Your task to perform on an android device: delete browsing data in the chrome app Image 0: 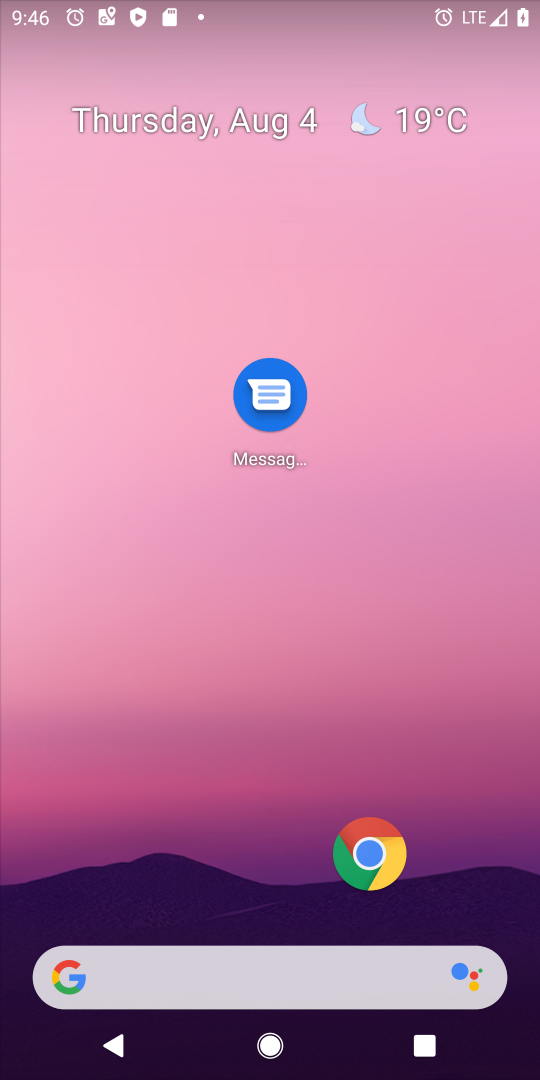
Step 0: click (363, 860)
Your task to perform on an android device: delete browsing data in the chrome app Image 1: 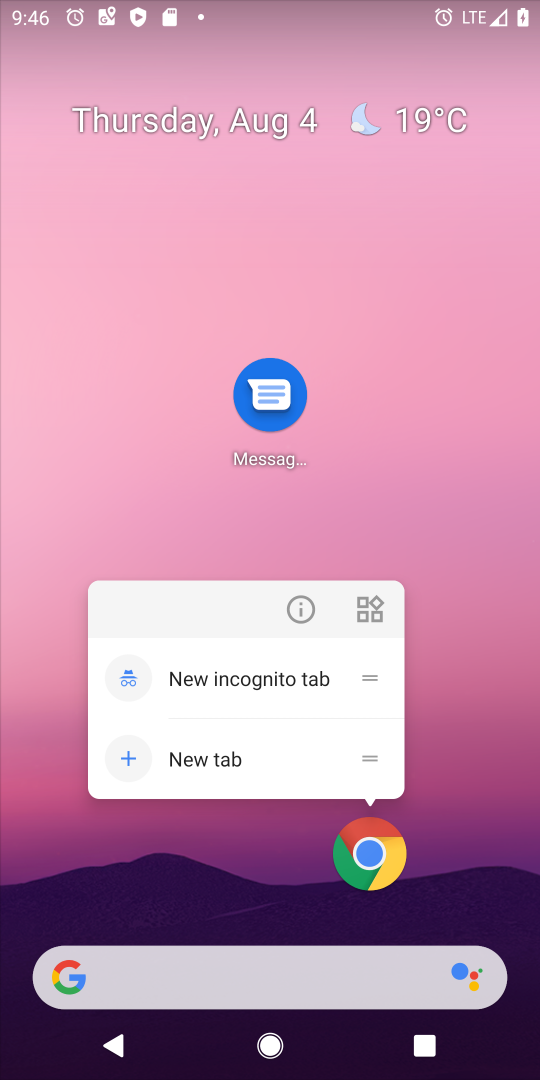
Step 1: click (363, 860)
Your task to perform on an android device: delete browsing data in the chrome app Image 2: 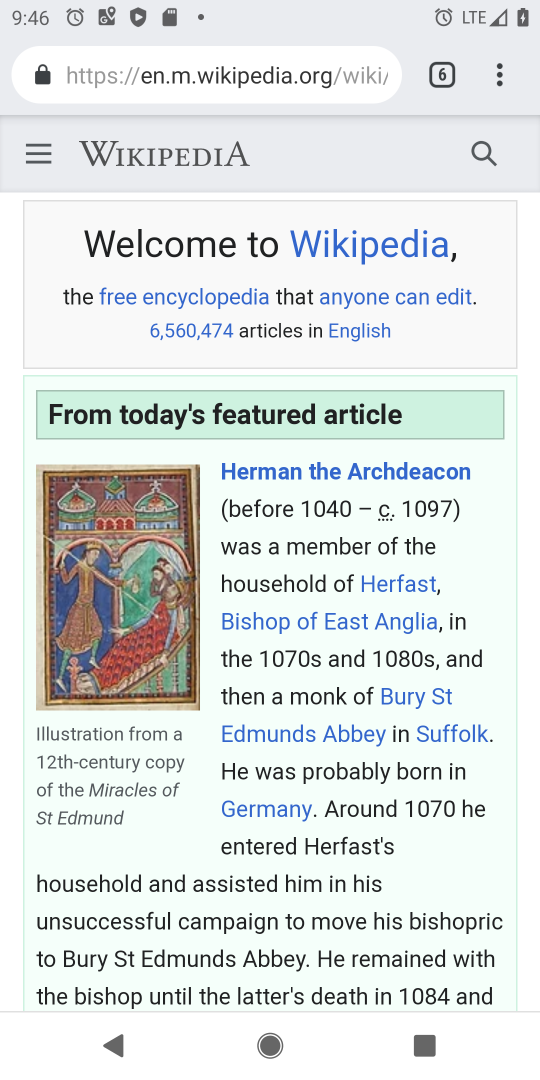
Step 2: click (497, 66)
Your task to perform on an android device: delete browsing data in the chrome app Image 3: 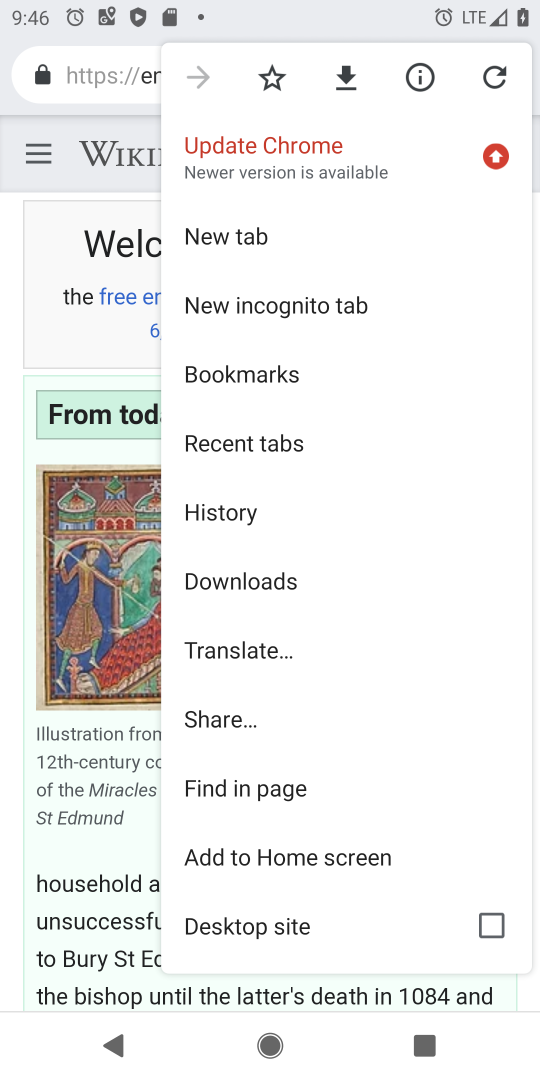
Step 3: drag from (277, 853) to (277, 461)
Your task to perform on an android device: delete browsing data in the chrome app Image 4: 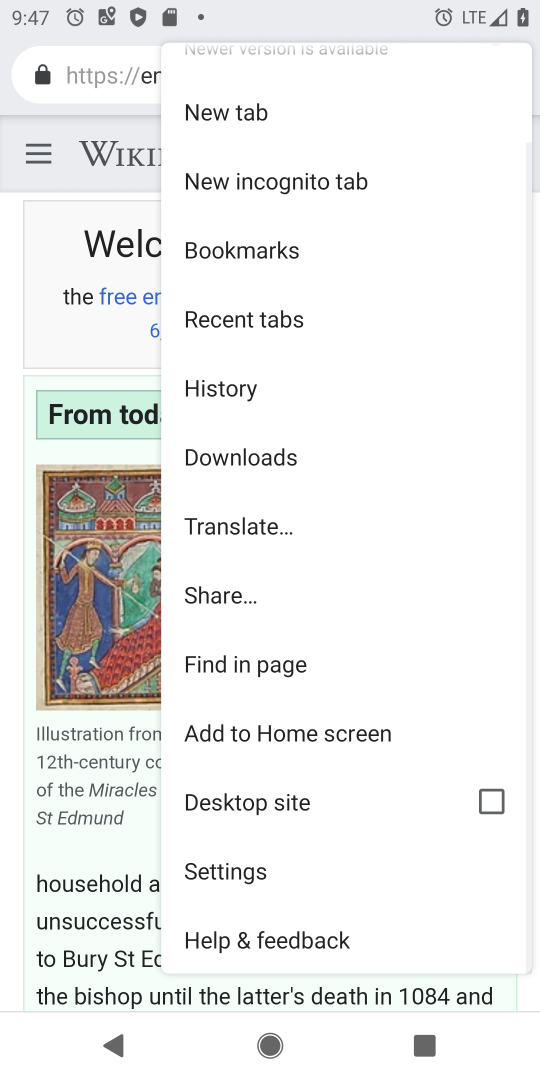
Step 4: click (203, 877)
Your task to perform on an android device: delete browsing data in the chrome app Image 5: 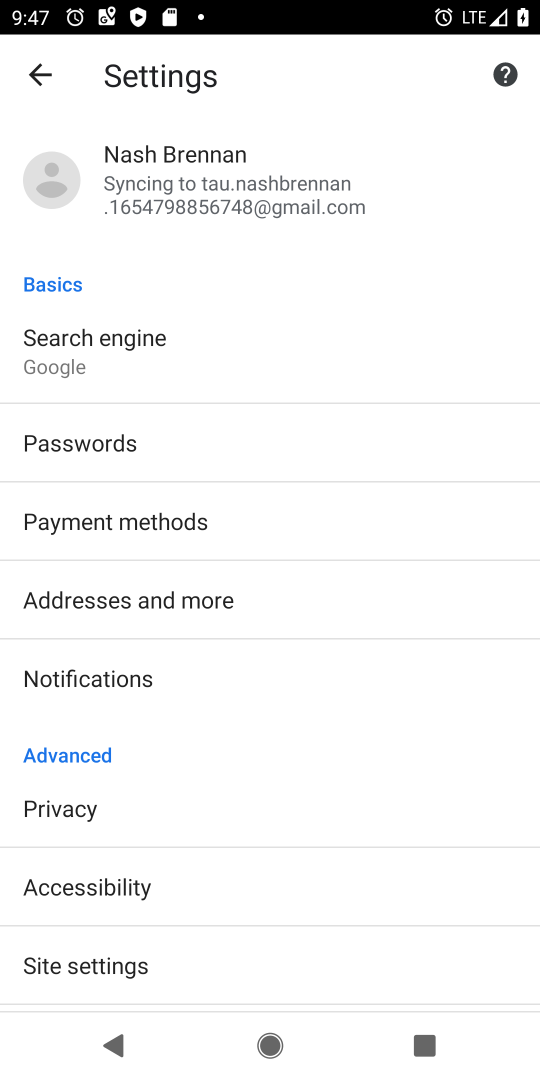
Step 5: click (61, 798)
Your task to perform on an android device: delete browsing data in the chrome app Image 6: 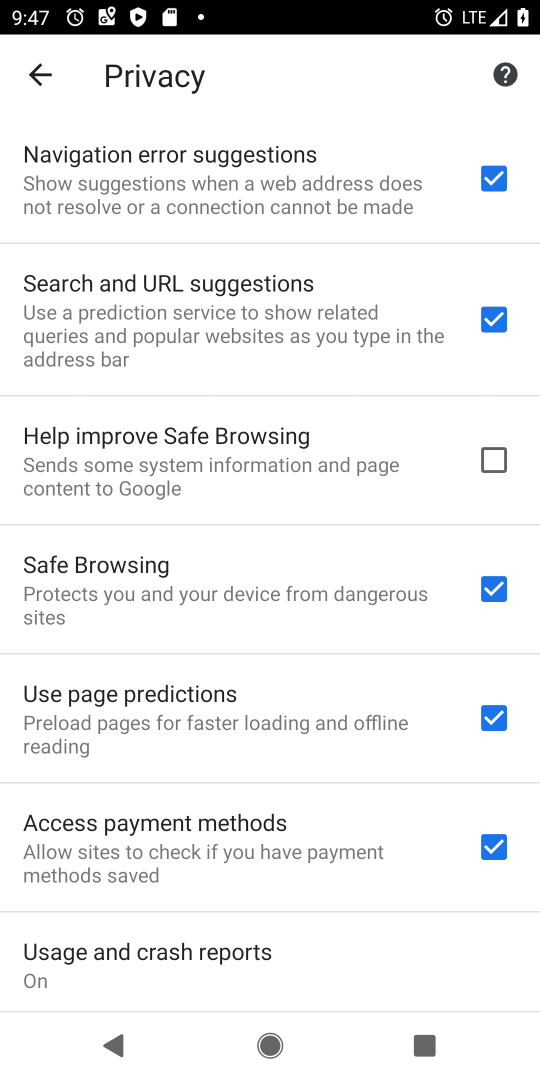
Step 6: drag from (195, 960) to (195, 535)
Your task to perform on an android device: delete browsing data in the chrome app Image 7: 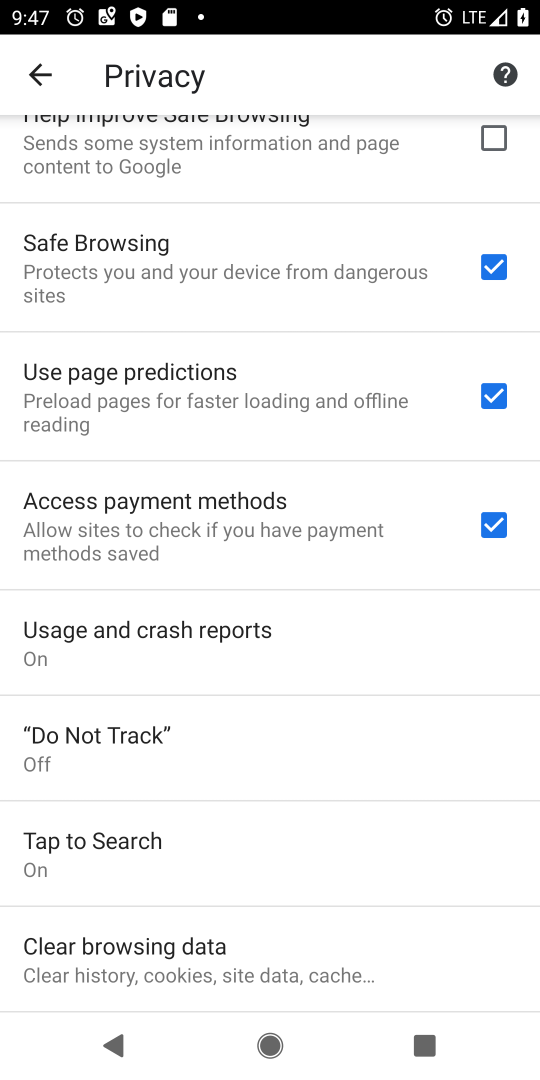
Step 7: click (172, 948)
Your task to perform on an android device: delete browsing data in the chrome app Image 8: 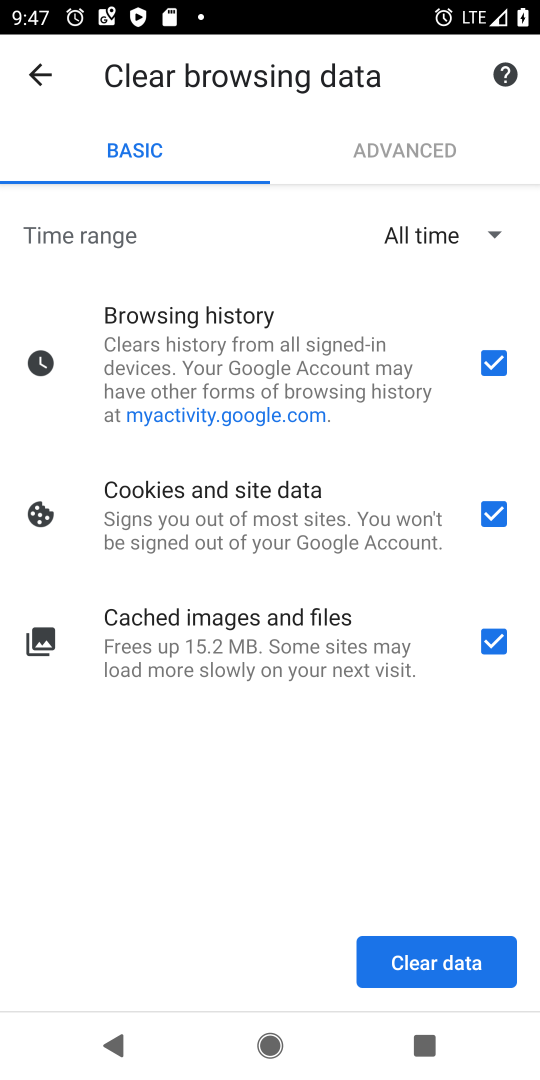
Step 8: click (434, 965)
Your task to perform on an android device: delete browsing data in the chrome app Image 9: 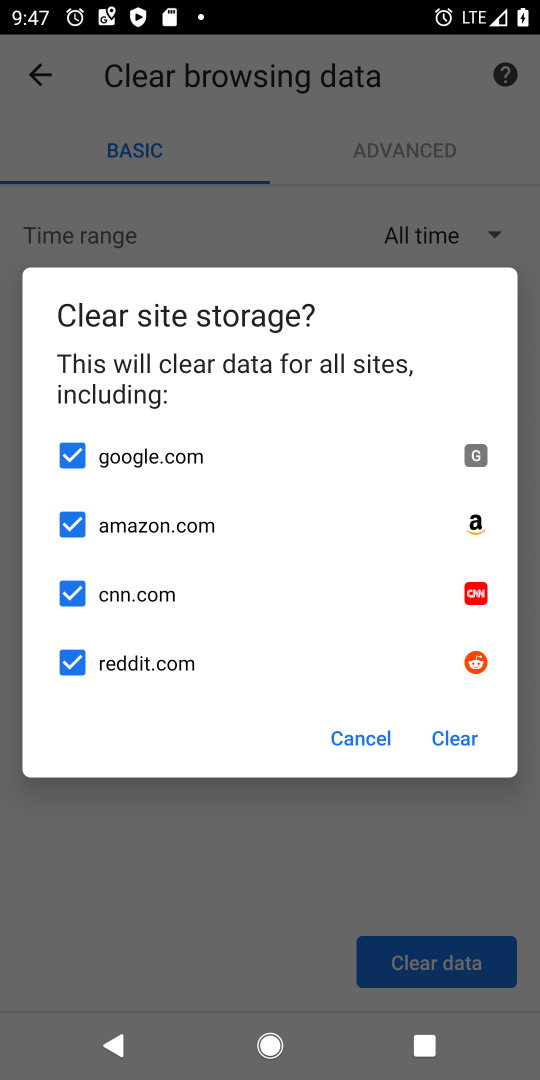
Step 9: click (455, 735)
Your task to perform on an android device: delete browsing data in the chrome app Image 10: 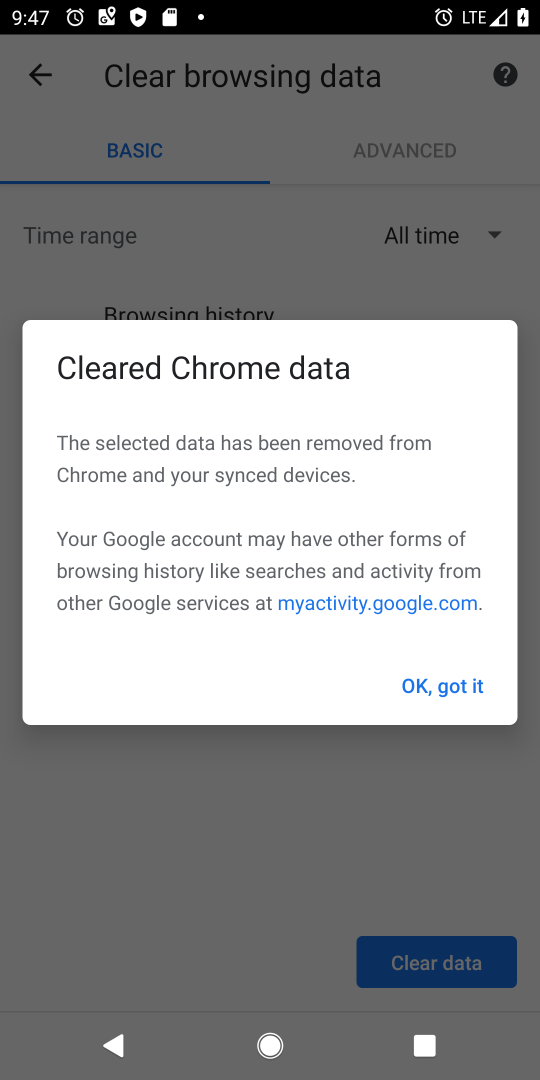
Step 10: click (436, 675)
Your task to perform on an android device: delete browsing data in the chrome app Image 11: 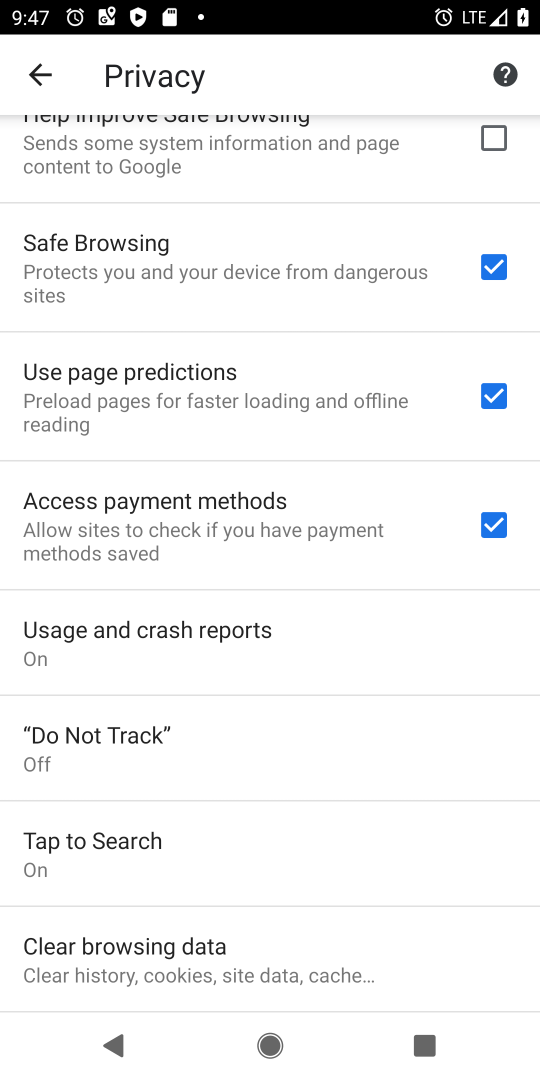
Step 11: task complete